Your task to perform on an android device: Search for seafood restaurants on Google Maps Image 0: 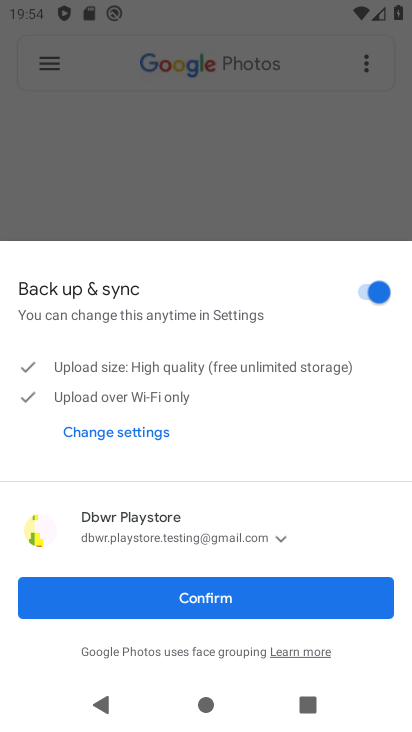
Step 0: press home button
Your task to perform on an android device: Search for seafood restaurants on Google Maps Image 1: 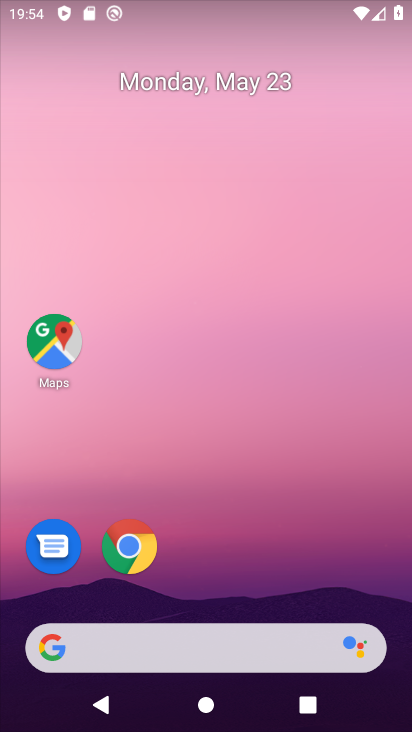
Step 1: drag from (380, 588) to (370, 276)
Your task to perform on an android device: Search for seafood restaurants on Google Maps Image 2: 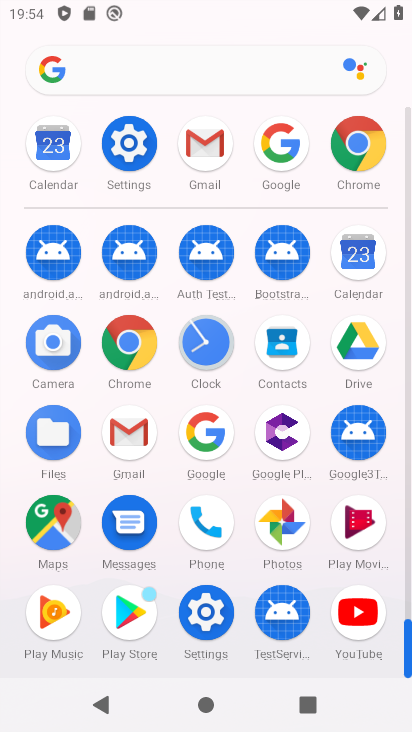
Step 2: click (66, 526)
Your task to perform on an android device: Search for seafood restaurants on Google Maps Image 3: 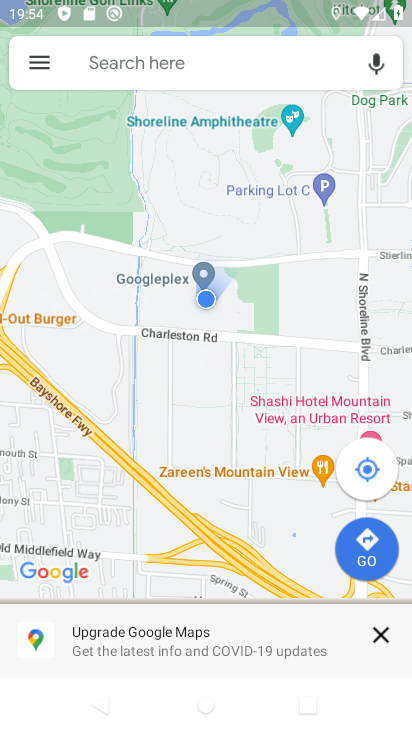
Step 3: click (172, 54)
Your task to perform on an android device: Search for seafood restaurants on Google Maps Image 4: 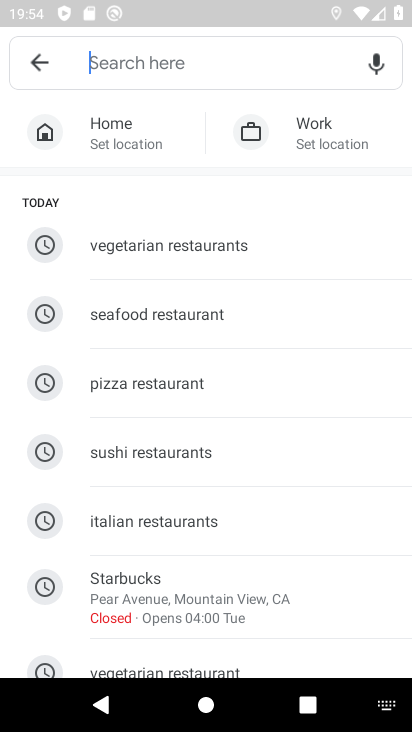
Step 4: type "seafood restaurants"
Your task to perform on an android device: Search for seafood restaurants on Google Maps Image 5: 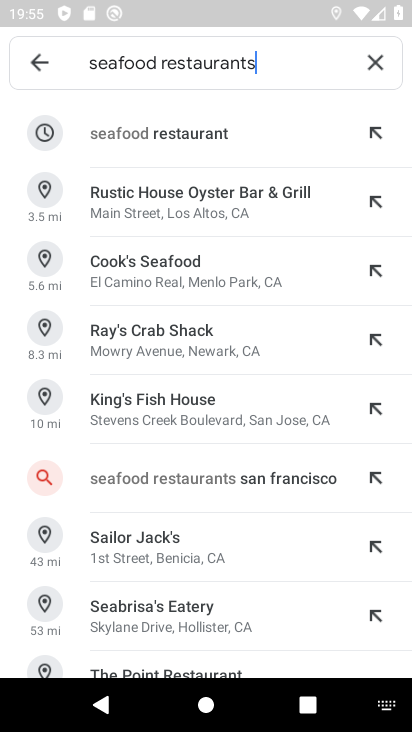
Step 5: click (256, 143)
Your task to perform on an android device: Search for seafood restaurants on Google Maps Image 6: 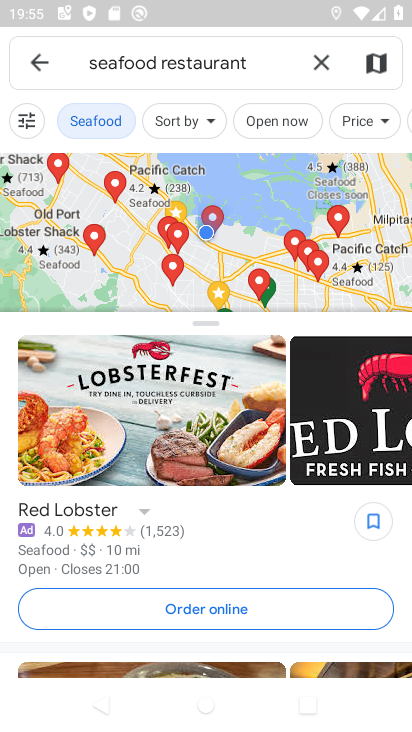
Step 6: task complete